Your task to perform on an android device: Open network settings Image 0: 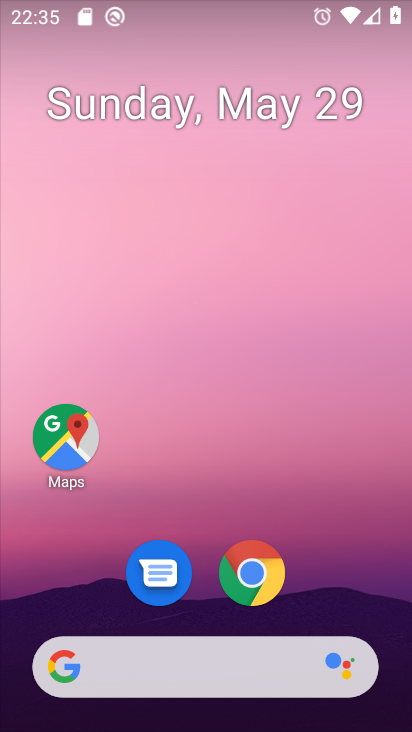
Step 0: drag from (219, 497) to (243, 6)
Your task to perform on an android device: Open network settings Image 1: 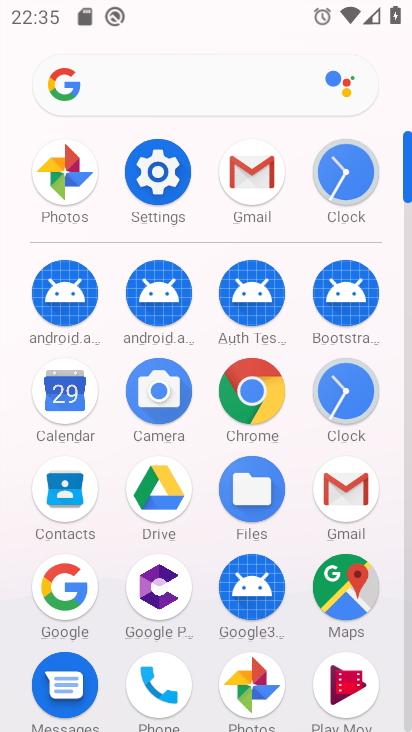
Step 1: click (162, 175)
Your task to perform on an android device: Open network settings Image 2: 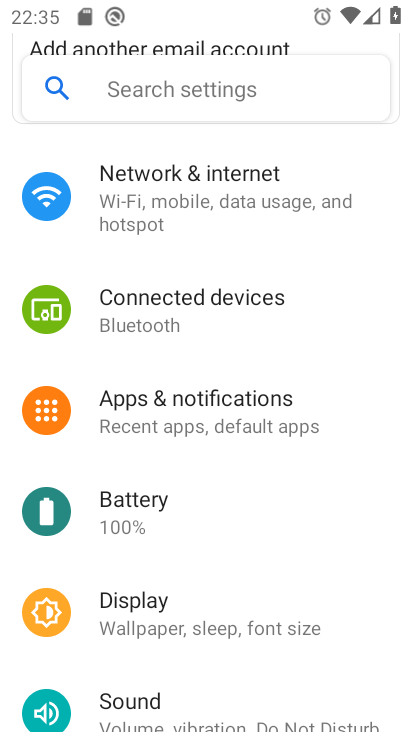
Step 2: click (170, 188)
Your task to perform on an android device: Open network settings Image 3: 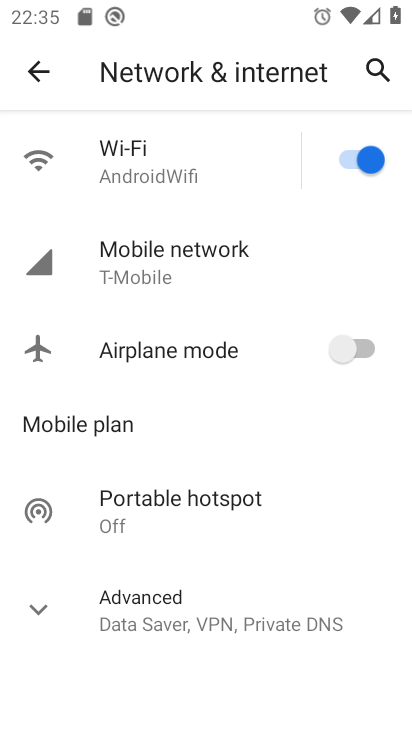
Step 3: task complete